Your task to perform on an android device: Go to wifi settings Image 0: 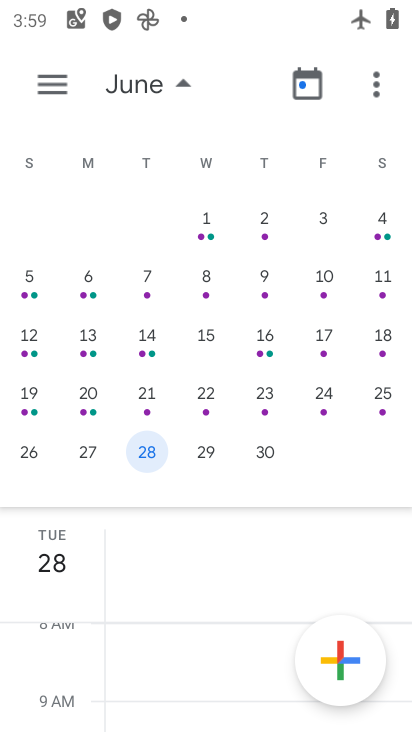
Step 0: press home button
Your task to perform on an android device: Go to wifi settings Image 1: 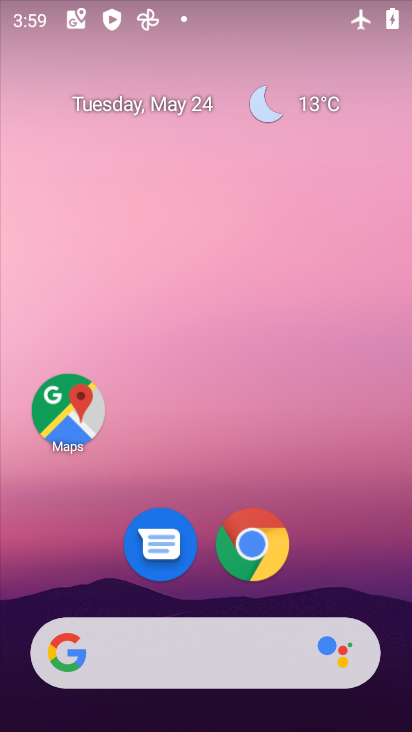
Step 1: drag from (350, 566) to (331, 72)
Your task to perform on an android device: Go to wifi settings Image 2: 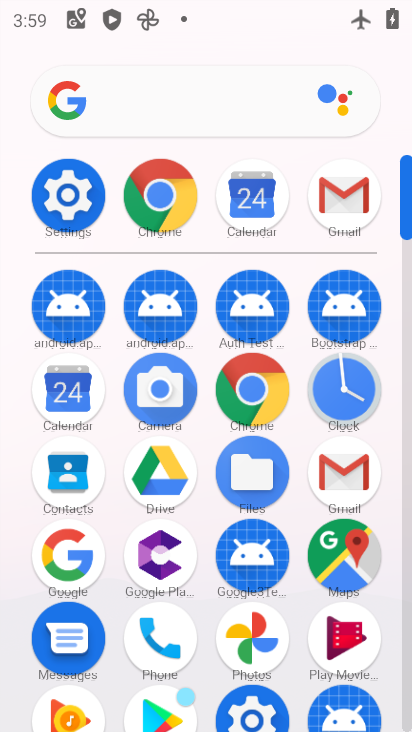
Step 2: click (44, 199)
Your task to perform on an android device: Go to wifi settings Image 3: 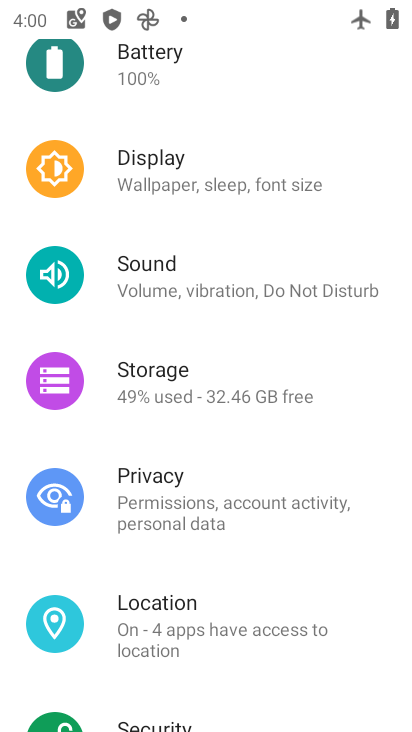
Step 3: drag from (149, 217) to (175, 650)
Your task to perform on an android device: Go to wifi settings Image 4: 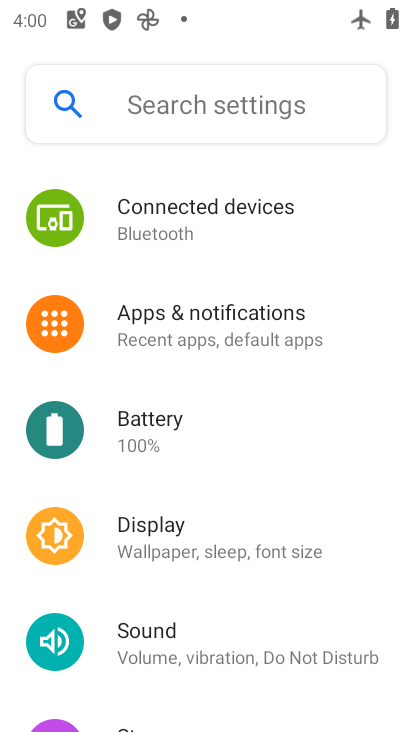
Step 4: drag from (159, 189) to (155, 633)
Your task to perform on an android device: Go to wifi settings Image 5: 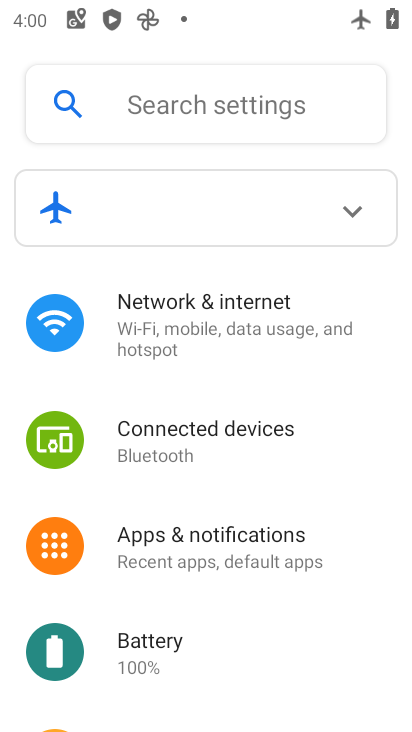
Step 5: click (157, 335)
Your task to perform on an android device: Go to wifi settings Image 6: 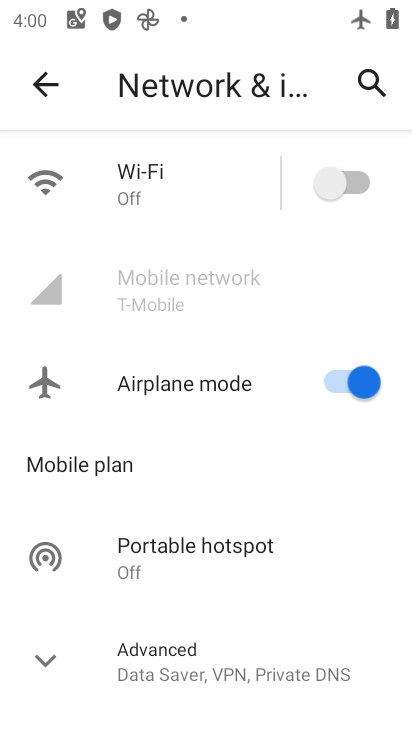
Step 6: click (117, 167)
Your task to perform on an android device: Go to wifi settings Image 7: 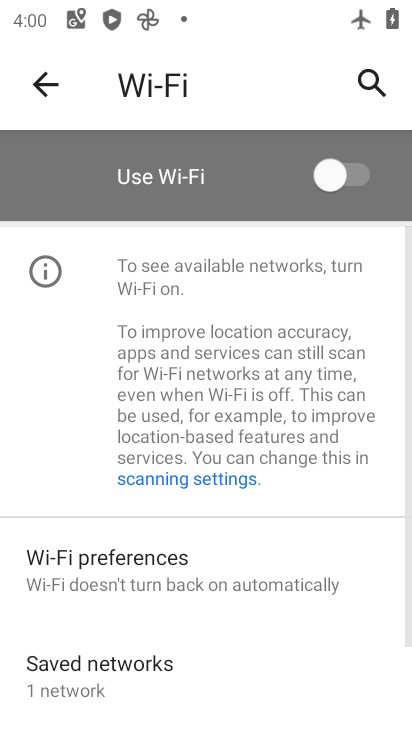
Step 7: task complete